Your task to perform on an android device: change text size in settings app Image 0: 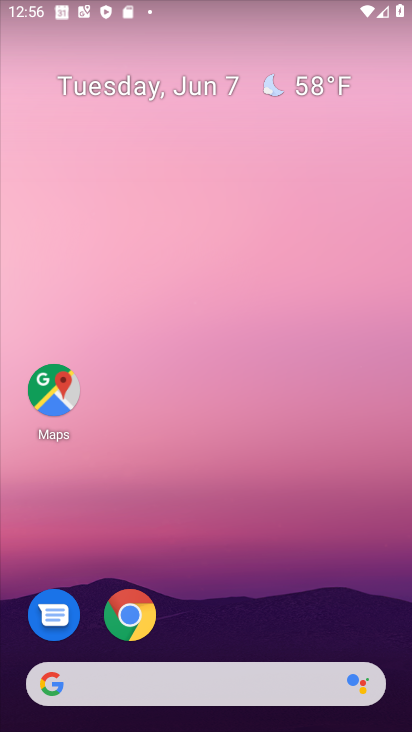
Step 0: drag from (264, 562) to (241, 171)
Your task to perform on an android device: change text size in settings app Image 1: 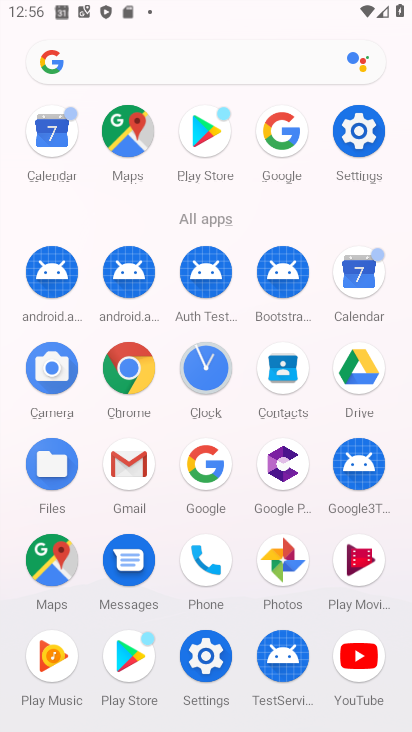
Step 1: click (359, 128)
Your task to perform on an android device: change text size in settings app Image 2: 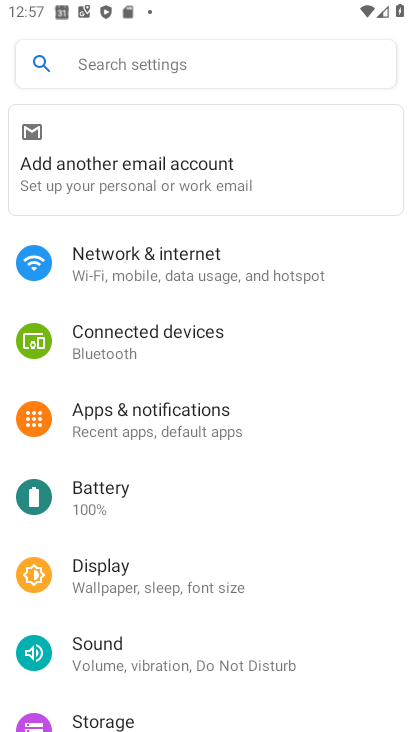
Step 2: drag from (170, 491) to (148, 319)
Your task to perform on an android device: change text size in settings app Image 3: 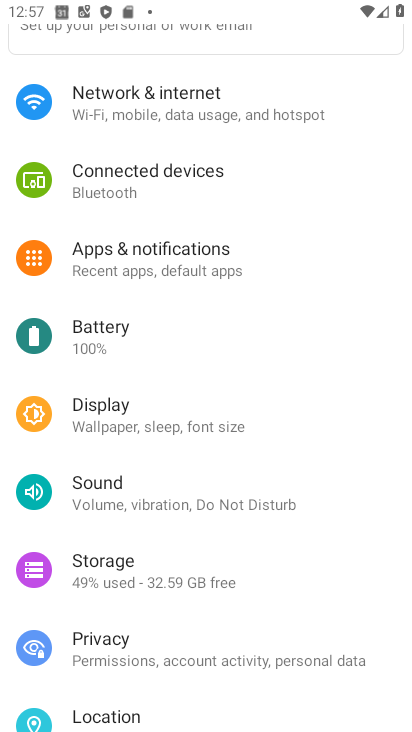
Step 3: drag from (171, 458) to (169, 317)
Your task to perform on an android device: change text size in settings app Image 4: 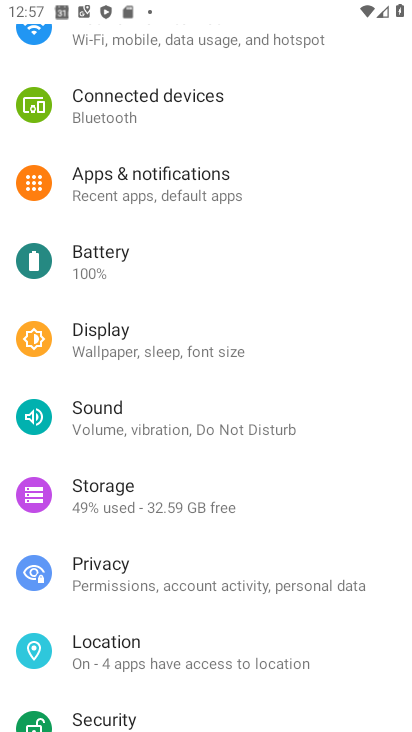
Step 4: drag from (156, 481) to (197, 288)
Your task to perform on an android device: change text size in settings app Image 5: 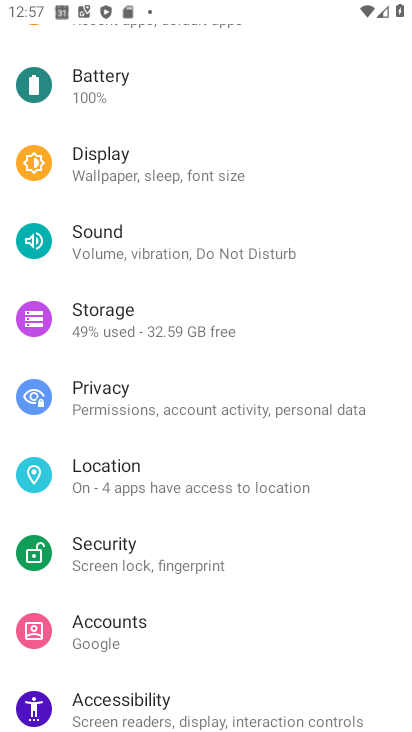
Step 5: drag from (193, 447) to (188, 326)
Your task to perform on an android device: change text size in settings app Image 6: 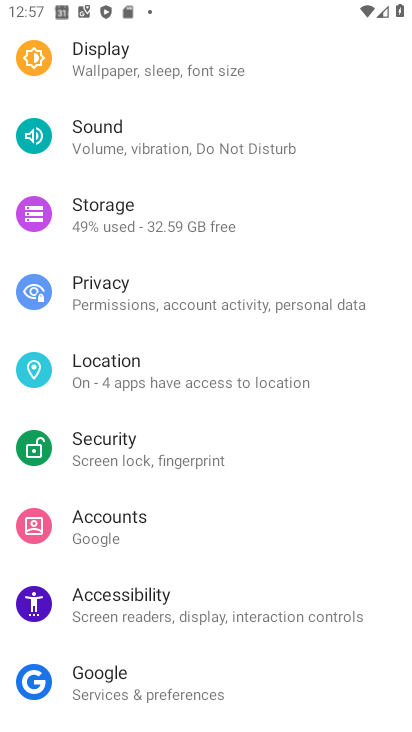
Step 6: drag from (212, 544) to (230, 386)
Your task to perform on an android device: change text size in settings app Image 7: 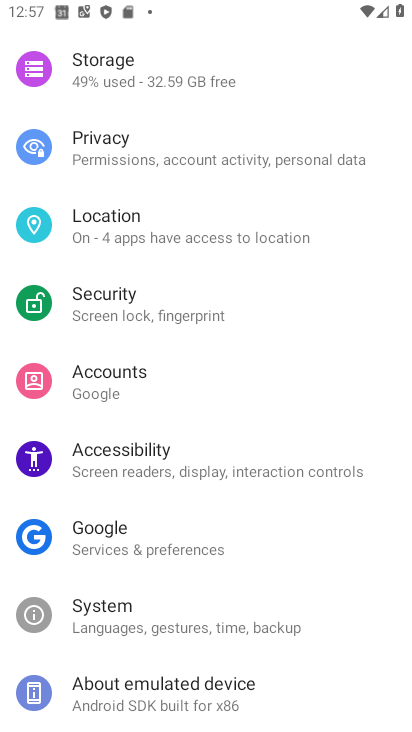
Step 7: click (224, 467)
Your task to perform on an android device: change text size in settings app Image 8: 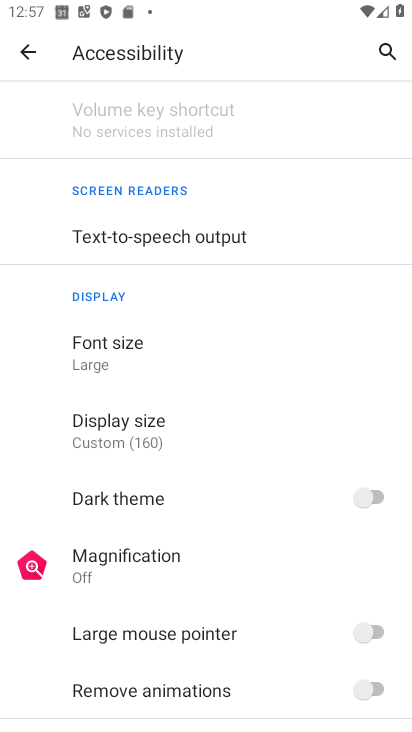
Step 8: click (156, 358)
Your task to perform on an android device: change text size in settings app Image 9: 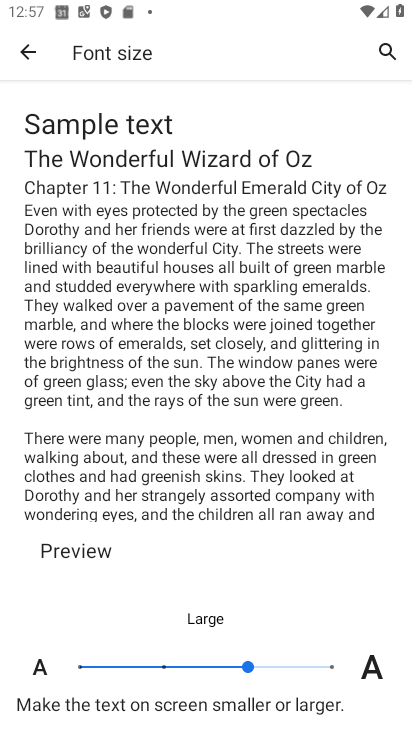
Step 9: click (167, 662)
Your task to perform on an android device: change text size in settings app Image 10: 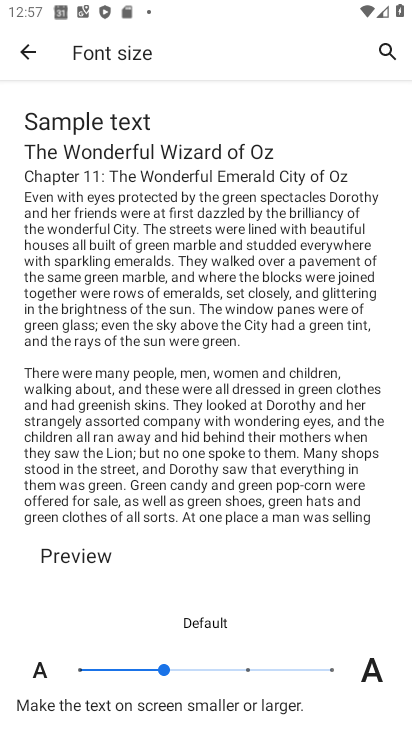
Step 10: task complete